Your task to perform on an android device: turn off priority inbox in the gmail app Image 0: 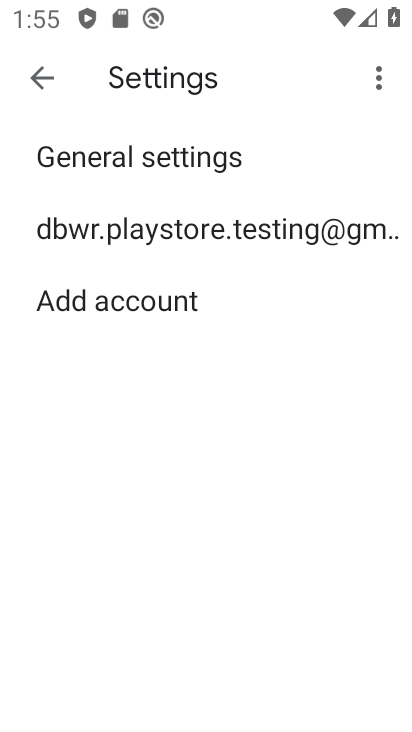
Step 0: click (148, 219)
Your task to perform on an android device: turn off priority inbox in the gmail app Image 1: 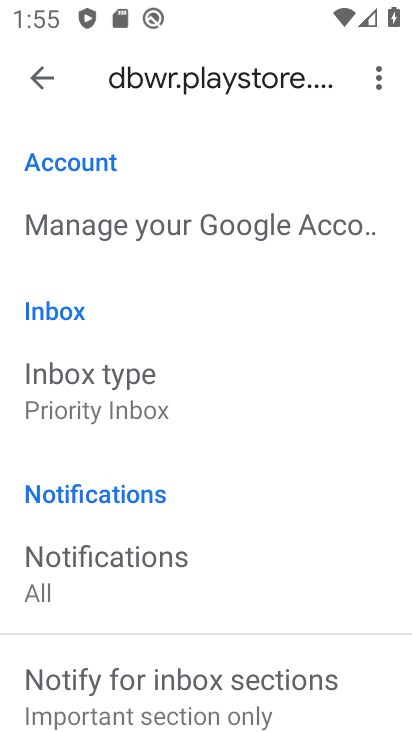
Step 1: click (98, 387)
Your task to perform on an android device: turn off priority inbox in the gmail app Image 2: 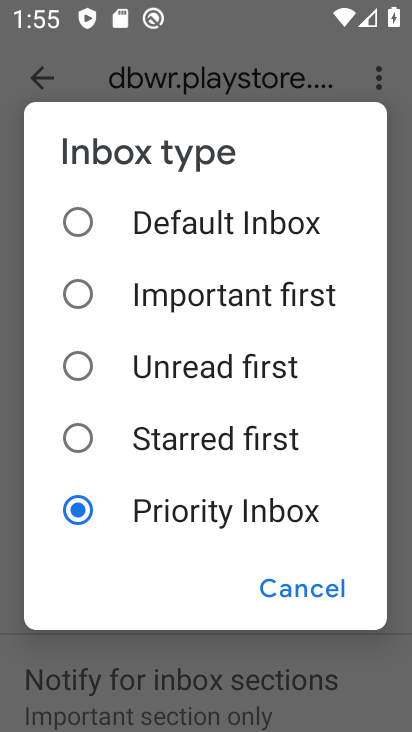
Step 2: click (75, 211)
Your task to perform on an android device: turn off priority inbox in the gmail app Image 3: 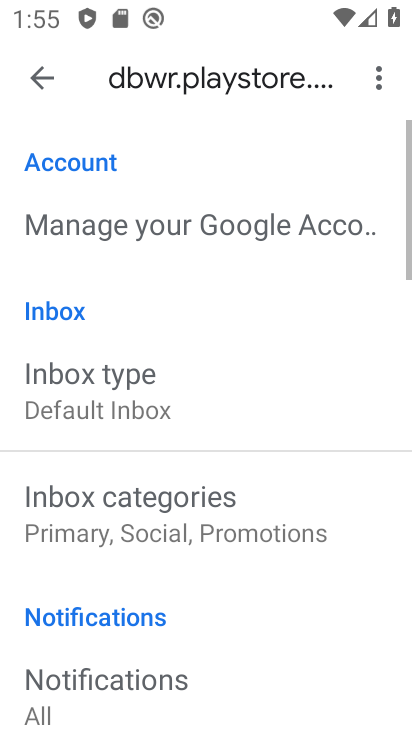
Step 3: task complete